Your task to perform on an android device: open app "Gboard" (install if not already installed) Image 0: 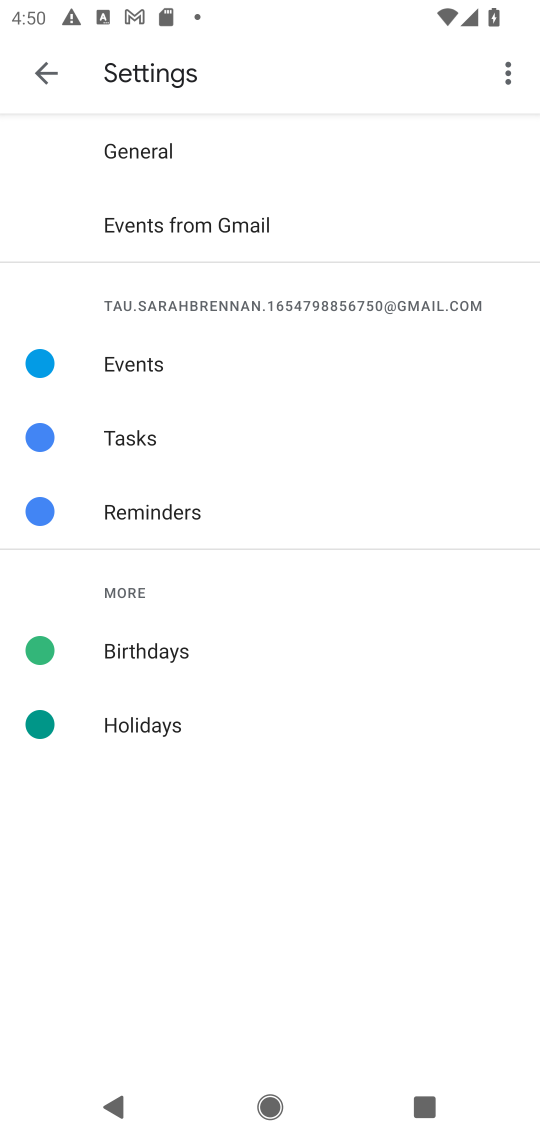
Step 0: press home button
Your task to perform on an android device: open app "Gboard" (install if not already installed) Image 1: 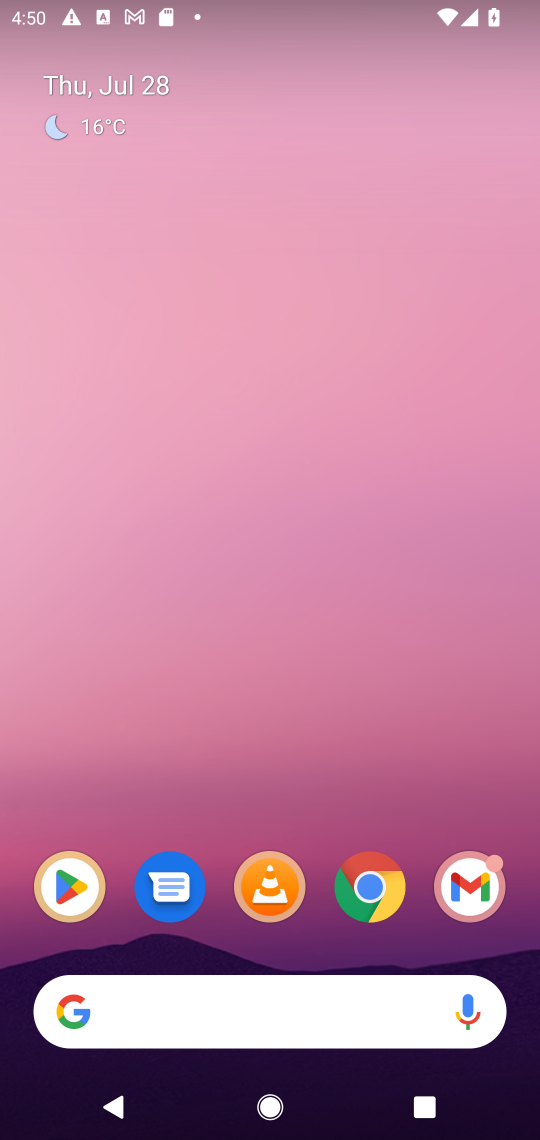
Step 1: click (63, 876)
Your task to perform on an android device: open app "Gboard" (install if not already installed) Image 2: 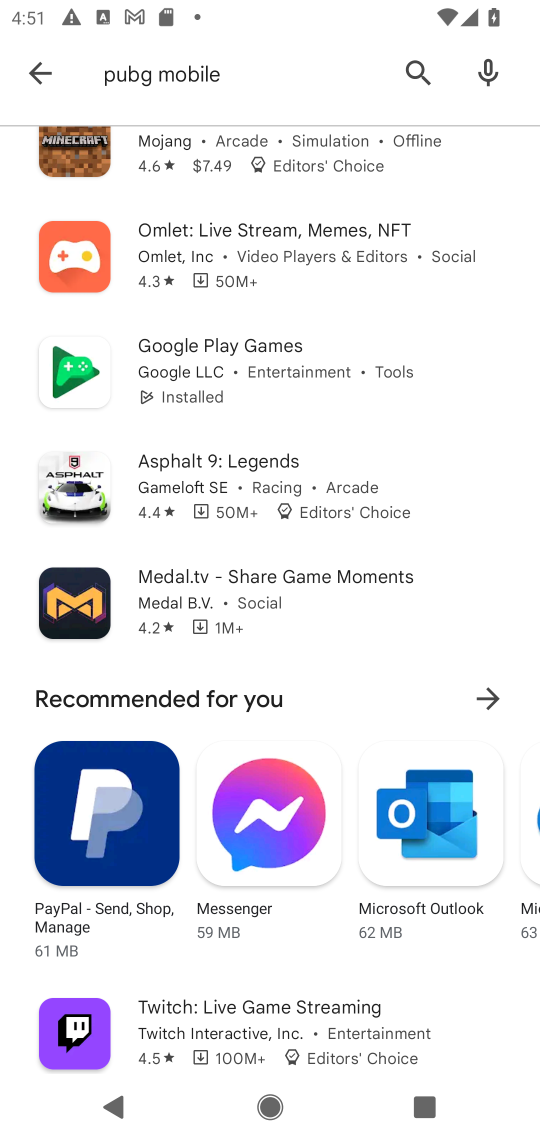
Step 2: click (185, 84)
Your task to perform on an android device: open app "Gboard" (install if not already installed) Image 3: 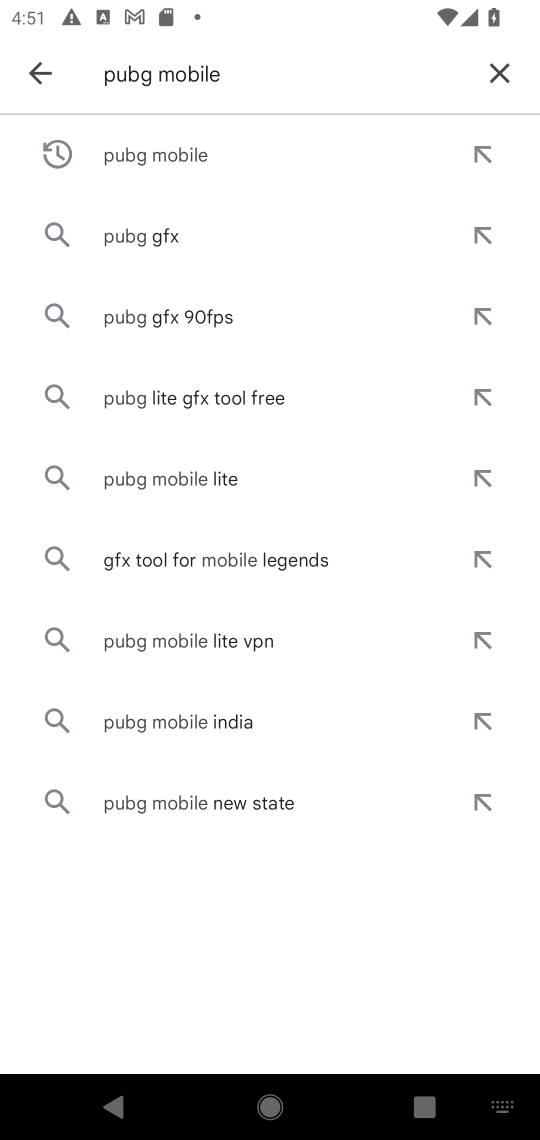
Step 3: click (503, 73)
Your task to perform on an android device: open app "Gboard" (install if not already installed) Image 4: 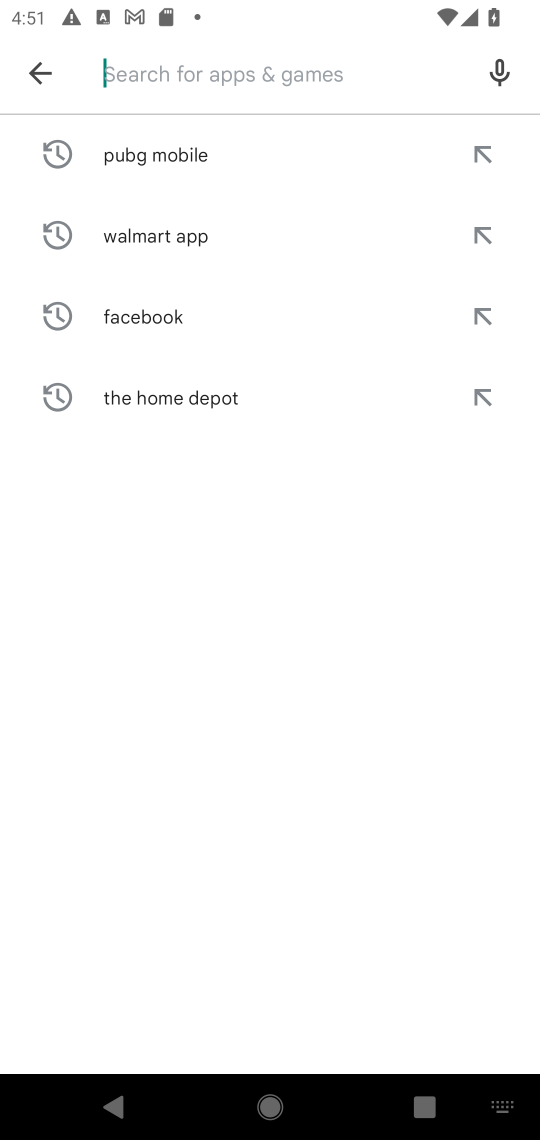
Step 4: type "Gboard"
Your task to perform on an android device: open app "Gboard" (install if not already installed) Image 5: 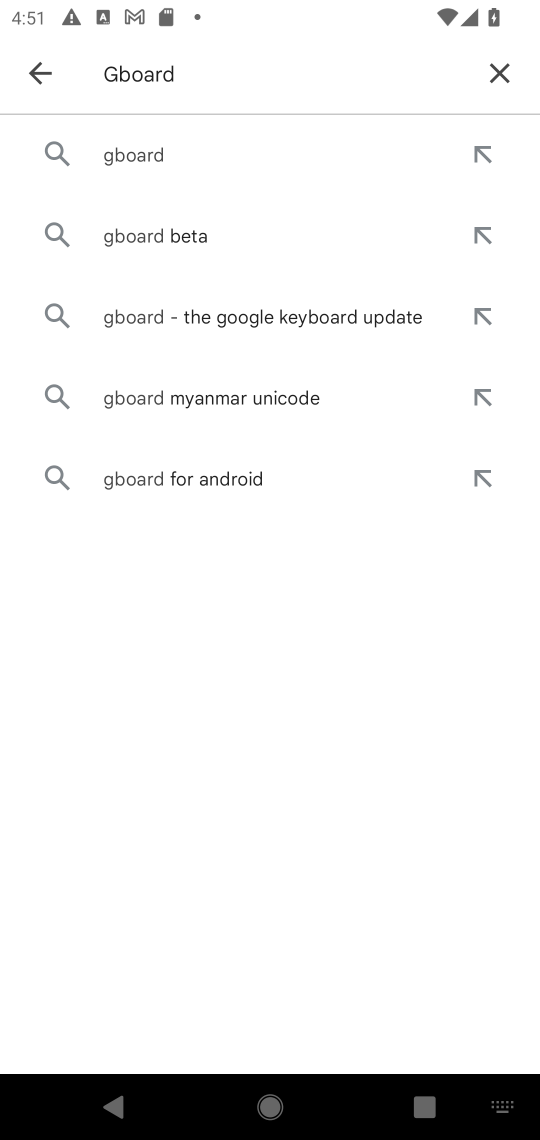
Step 5: click (153, 164)
Your task to perform on an android device: open app "Gboard" (install if not already installed) Image 6: 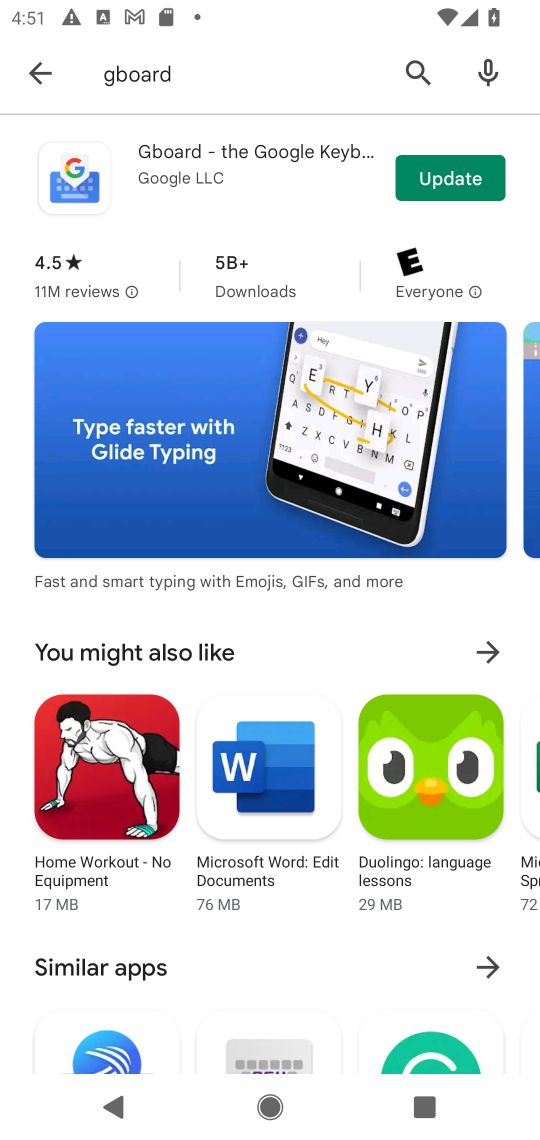
Step 6: click (476, 191)
Your task to perform on an android device: open app "Gboard" (install if not already installed) Image 7: 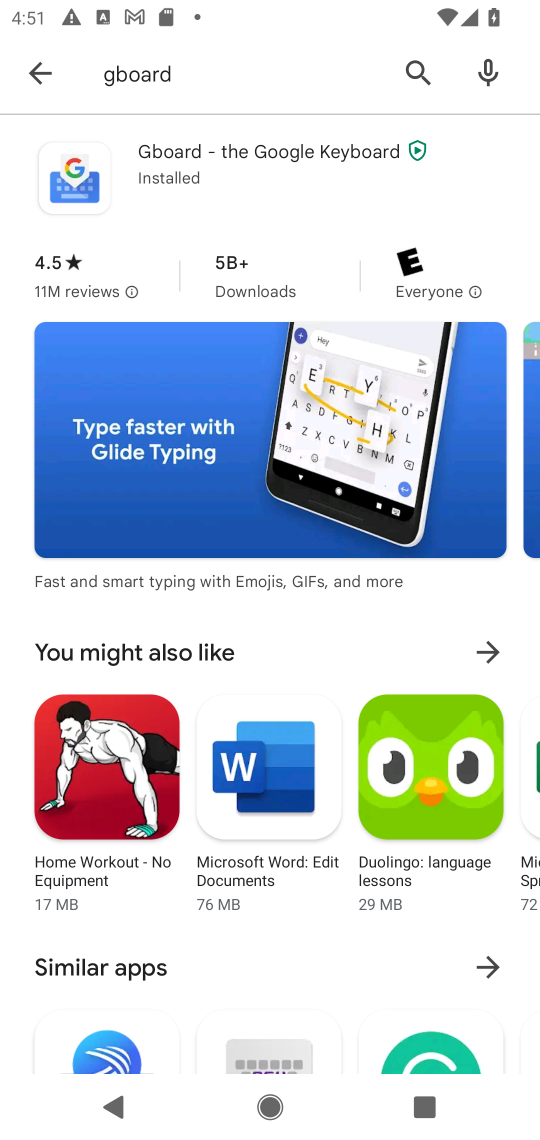
Step 7: click (178, 169)
Your task to perform on an android device: open app "Gboard" (install if not already installed) Image 8: 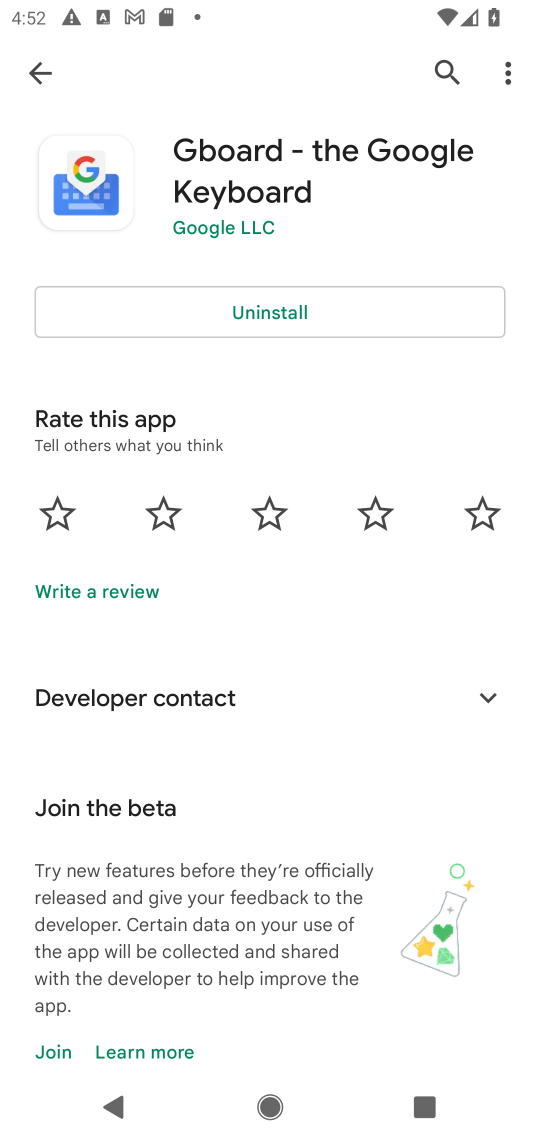
Step 8: task complete